Your task to perform on an android device: uninstall "Google Photos" Image 0: 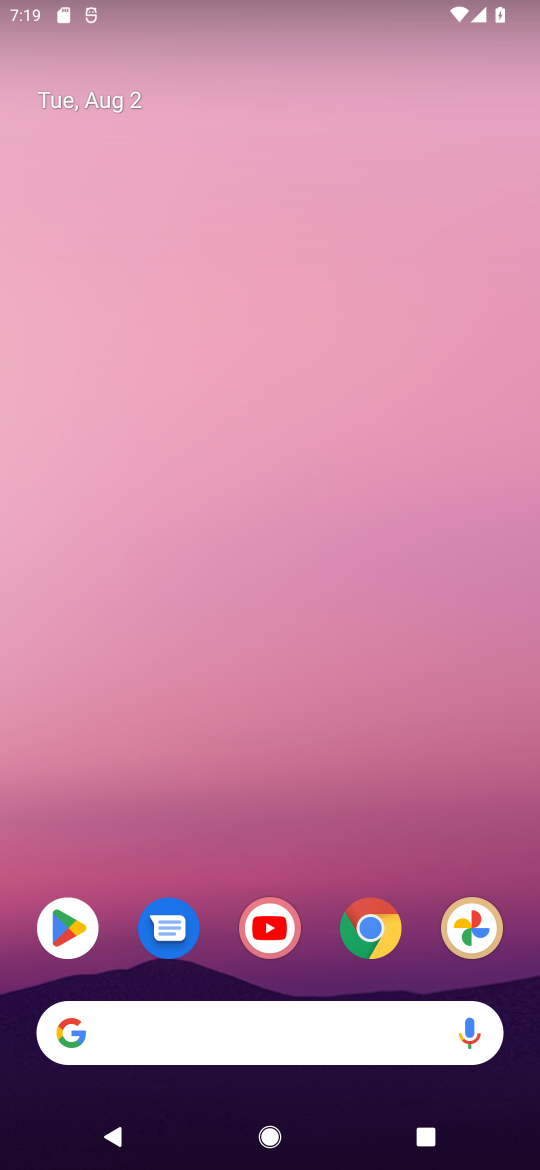
Step 0: click (66, 930)
Your task to perform on an android device: uninstall "Google Photos" Image 1: 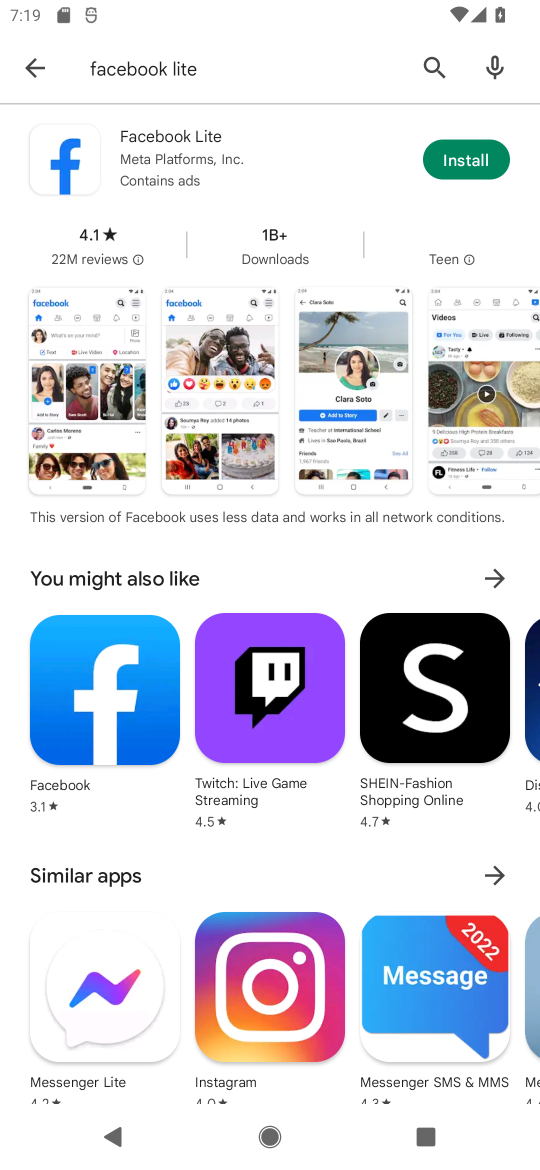
Step 1: click (424, 60)
Your task to perform on an android device: uninstall "Google Photos" Image 2: 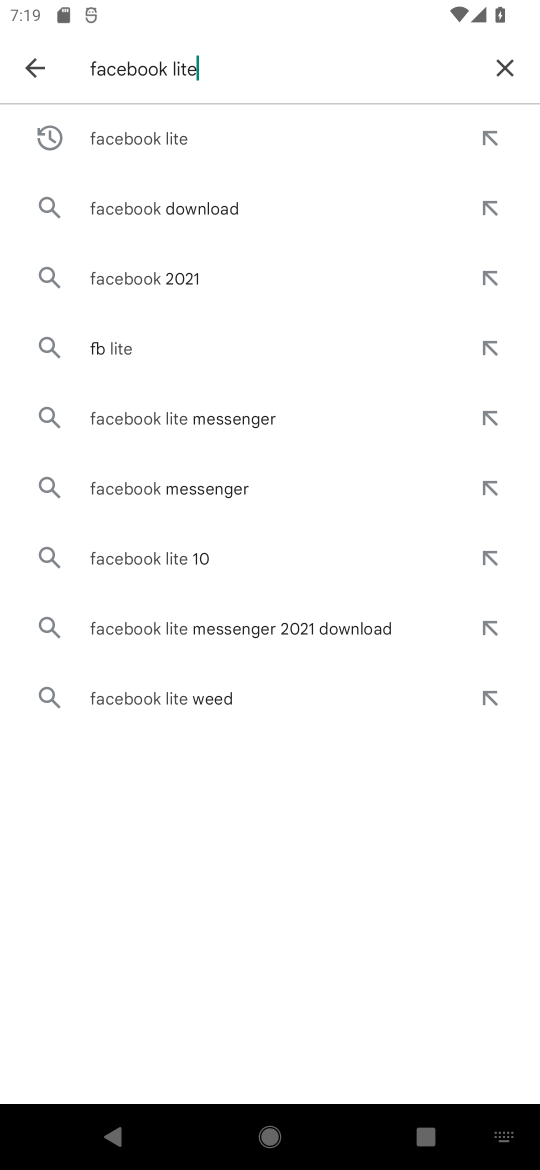
Step 2: click (499, 71)
Your task to perform on an android device: uninstall "Google Photos" Image 3: 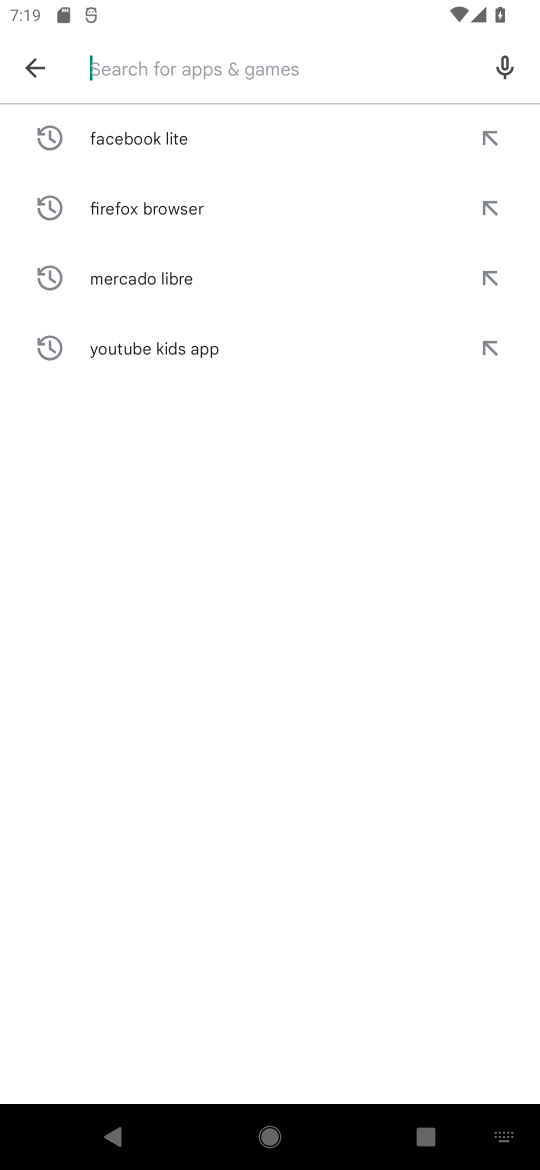
Step 3: type "google photos "
Your task to perform on an android device: uninstall "Google Photos" Image 4: 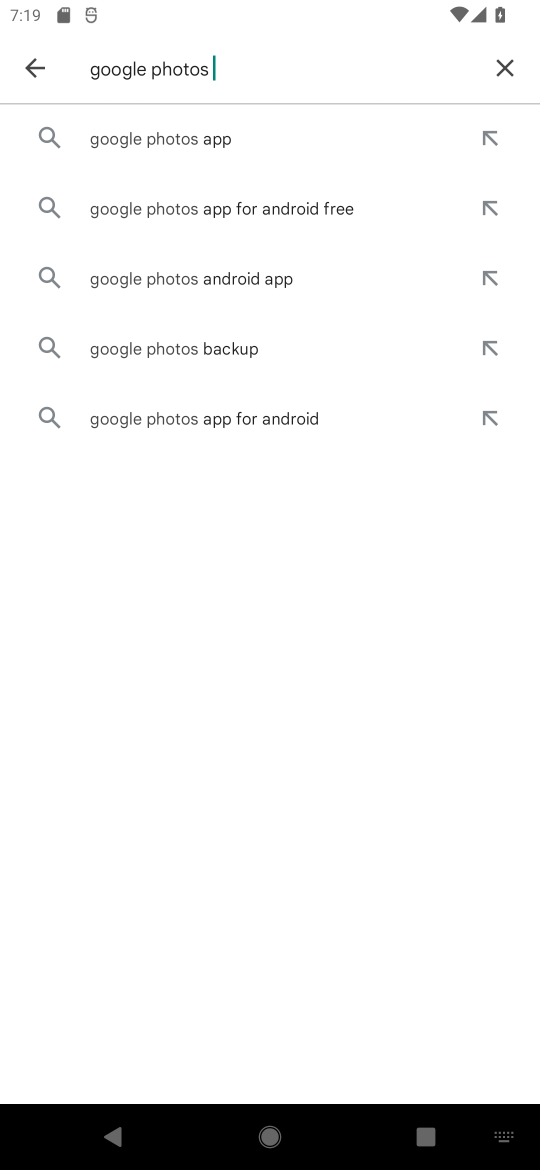
Step 4: click (255, 130)
Your task to perform on an android device: uninstall "Google Photos" Image 5: 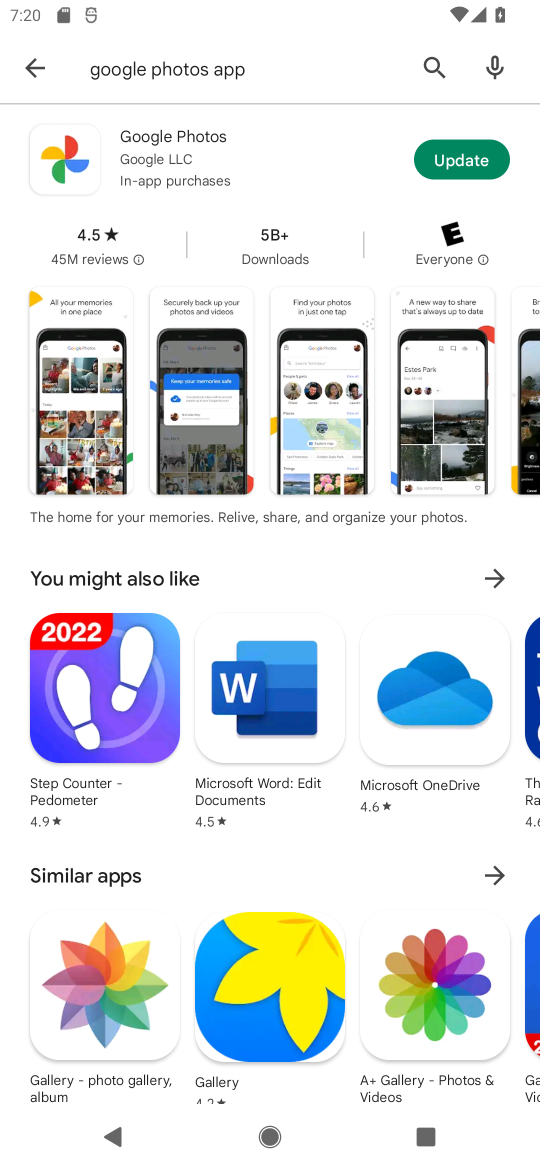
Step 5: click (483, 163)
Your task to perform on an android device: uninstall "Google Photos" Image 6: 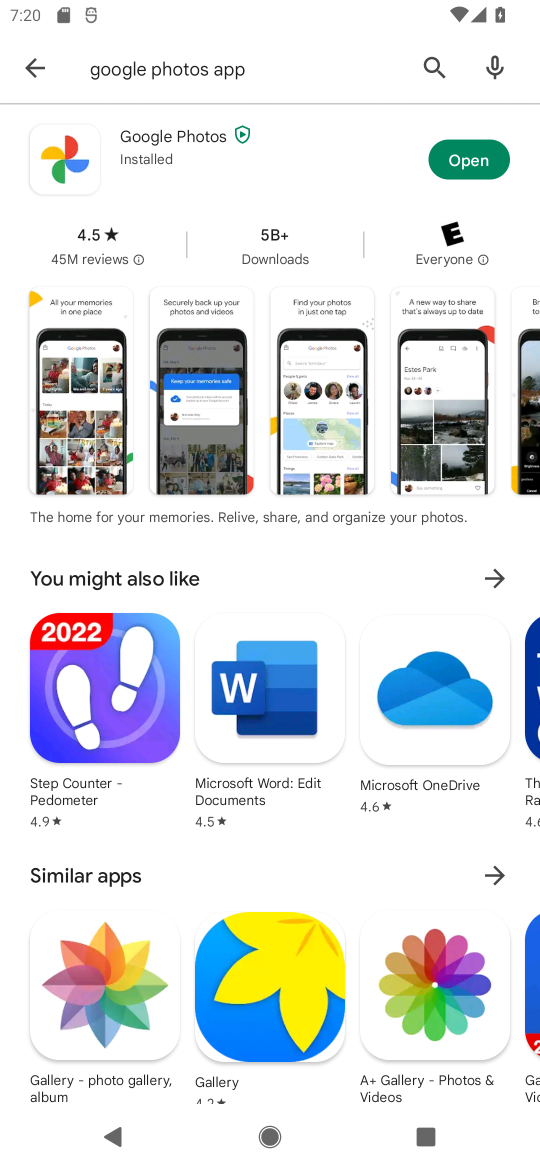
Step 6: task complete